Your task to perform on an android device: Open battery settings Image 0: 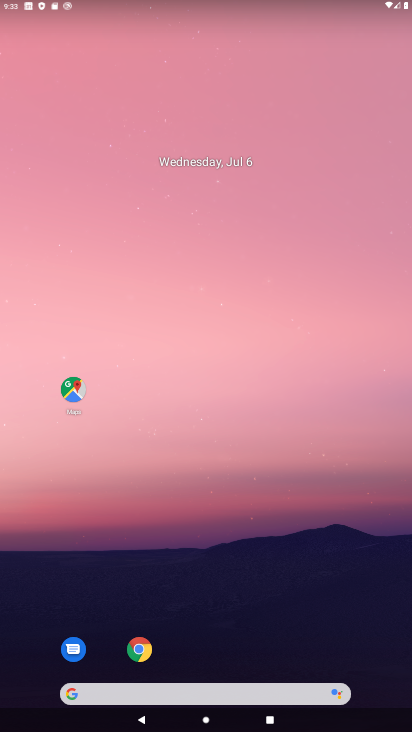
Step 0: drag from (245, 685) to (148, 18)
Your task to perform on an android device: Open battery settings Image 1: 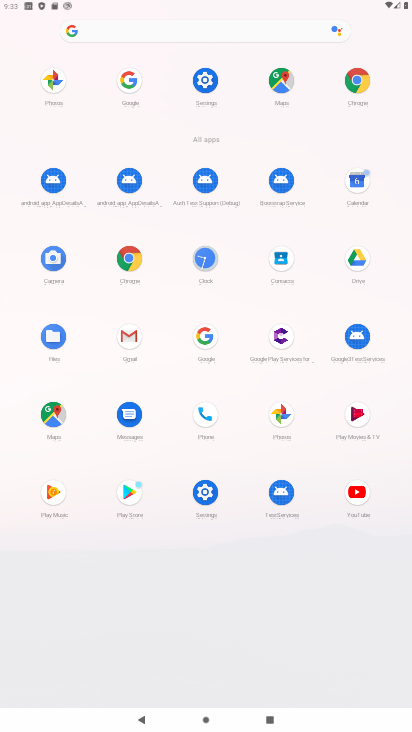
Step 1: click (209, 93)
Your task to perform on an android device: Open battery settings Image 2: 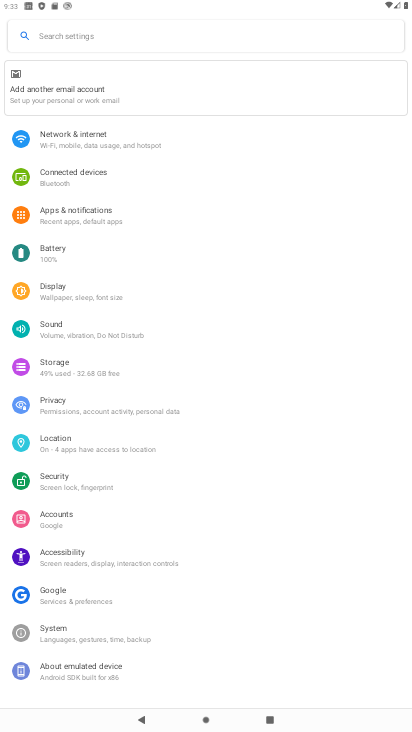
Step 2: click (68, 257)
Your task to perform on an android device: Open battery settings Image 3: 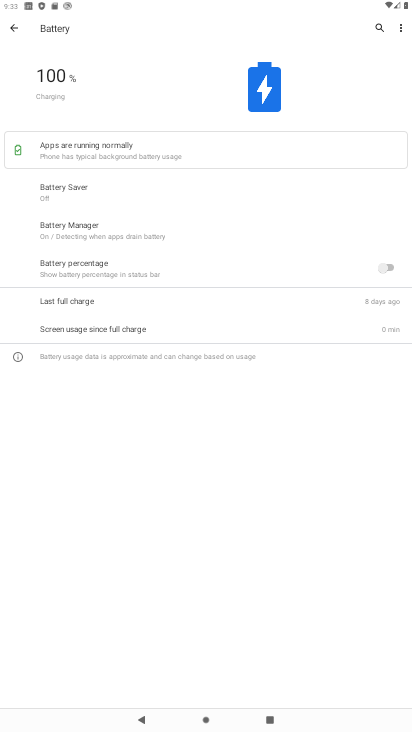
Step 3: task complete